Your task to perform on an android device: toggle wifi Image 0: 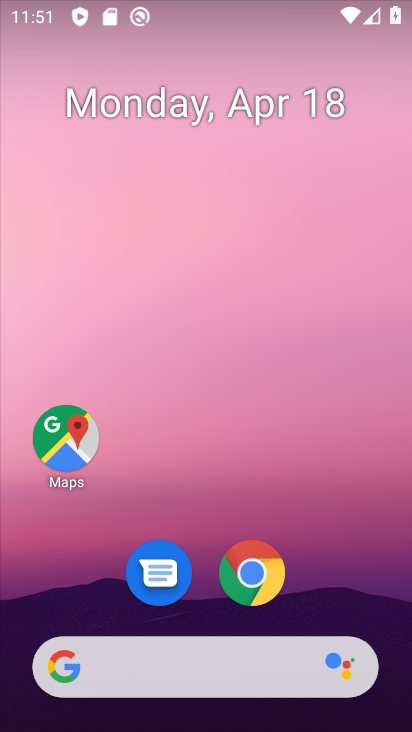
Step 0: drag from (194, 7) to (200, 510)
Your task to perform on an android device: toggle wifi Image 1: 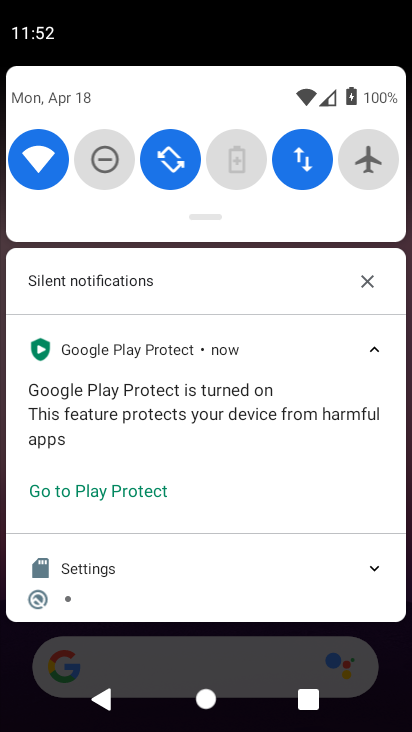
Step 1: click (39, 153)
Your task to perform on an android device: toggle wifi Image 2: 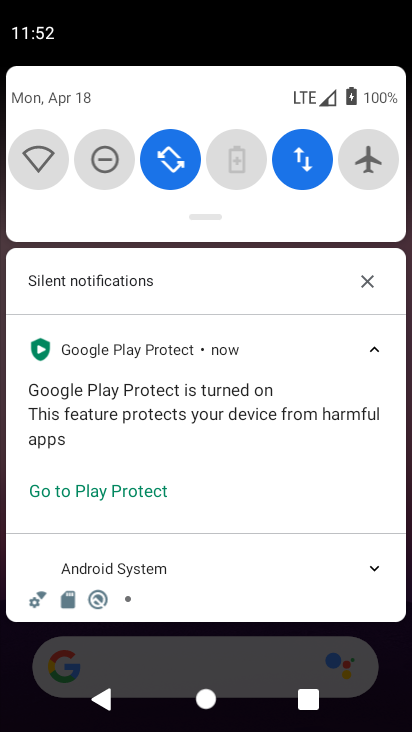
Step 2: task complete